Your task to perform on an android device: move an email to a new category in the gmail app Image 0: 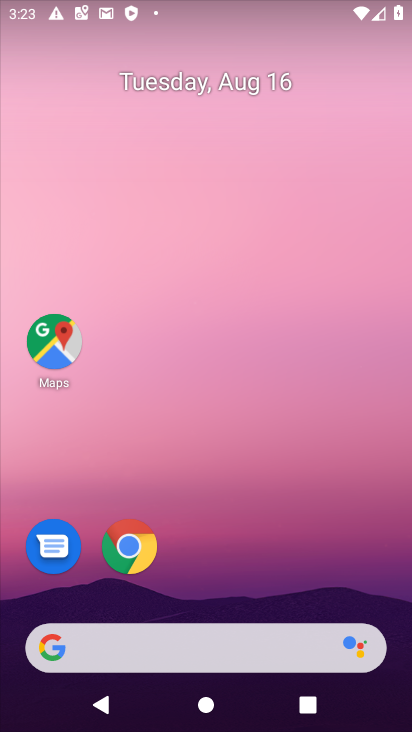
Step 0: press home button
Your task to perform on an android device: move an email to a new category in the gmail app Image 1: 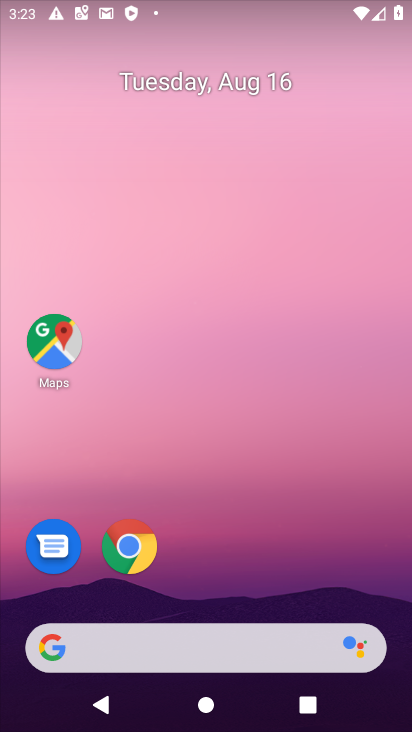
Step 1: drag from (337, 599) to (357, 118)
Your task to perform on an android device: move an email to a new category in the gmail app Image 2: 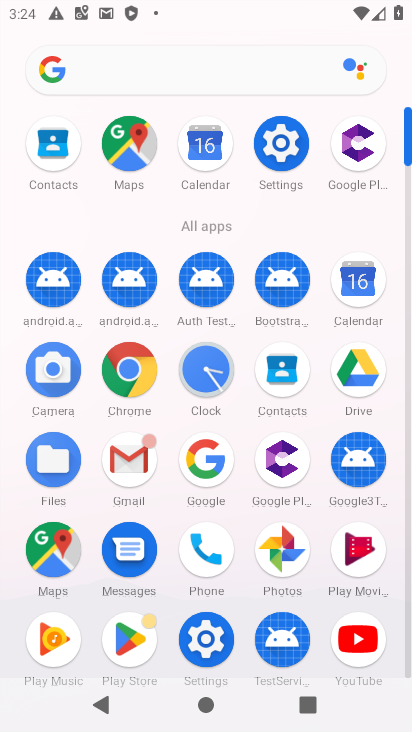
Step 2: click (129, 470)
Your task to perform on an android device: move an email to a new category in the gmail app Image 3: 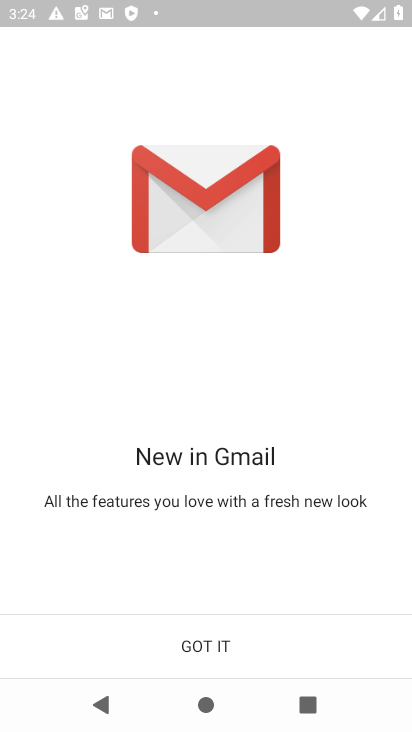
Step 3: click (197, 649)
Your task to perform on an android device: move an email to a new category in the gmail app Image 4: 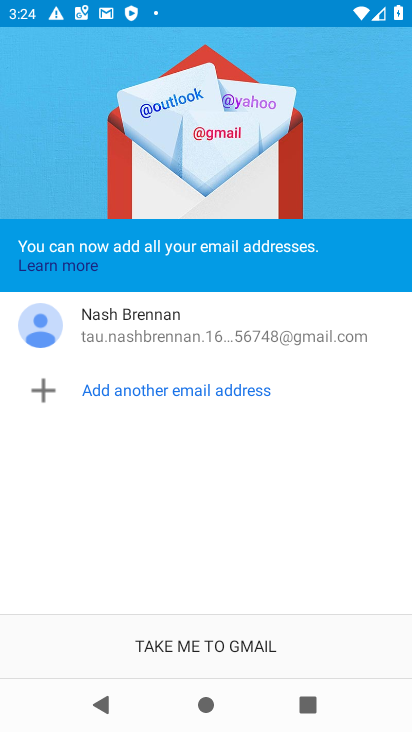
Step 4: click (212, 644)
Your task to perform on an android device: move an email to a new category in the gmail app Image 5: 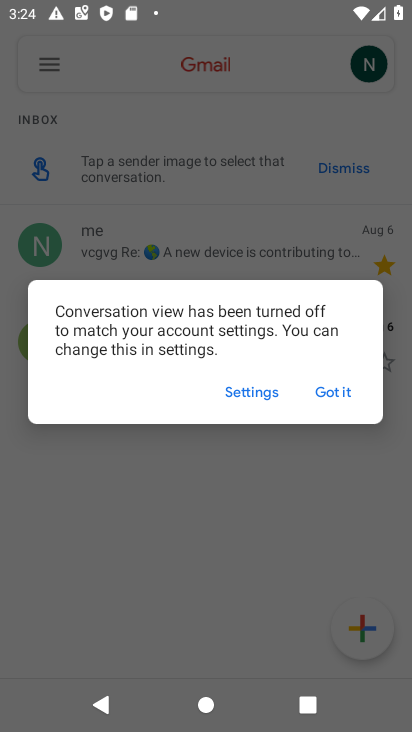
Step 5: click (339, 389)
Your task to perform on an android device: move an email to a new category in the gmail app Image 6: 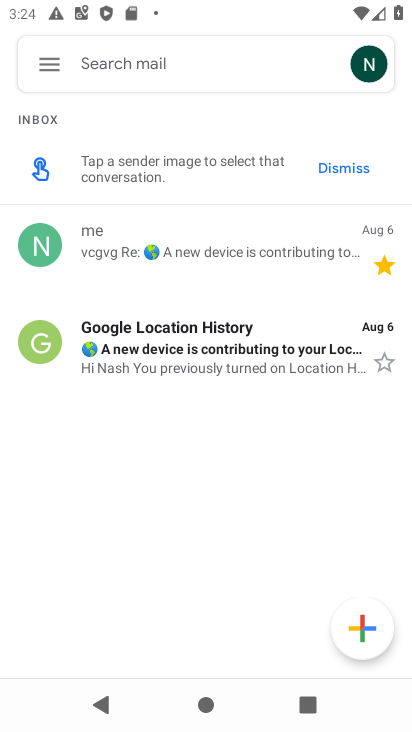
Step 6: click (230, 249)
Your task to perform on an android device: move an email to a new category in the gmail app Image 7: 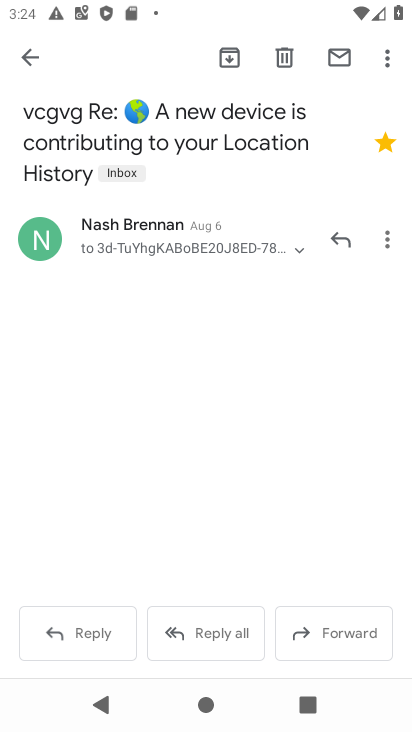
Step 7: click (386, 59)
Your task to perform on an android device: move an email to a new category in the gmail app Image 8: 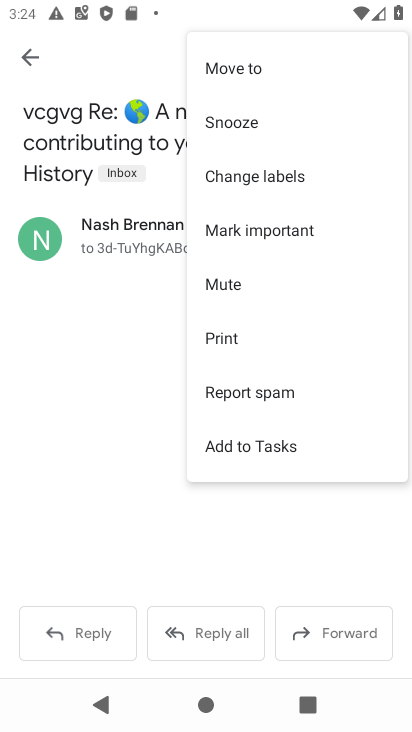
Step 8: click (267, 69)
Your task to perform on an android device: move an email to a new category in the gmail app Image 9: 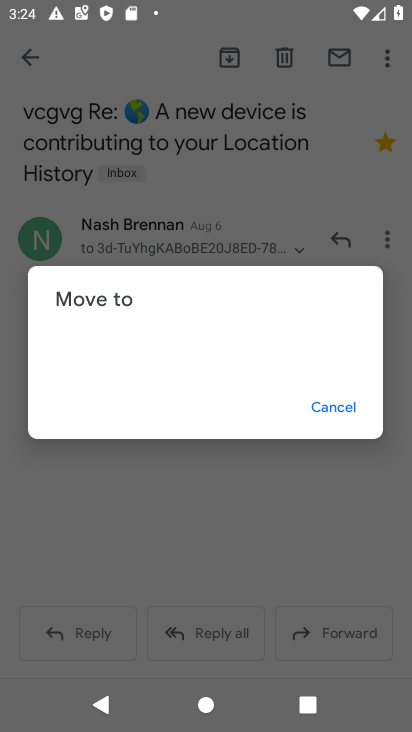
Step 9: task complete